Your task to perform on an android device: Google the capital of Peru Image 0: 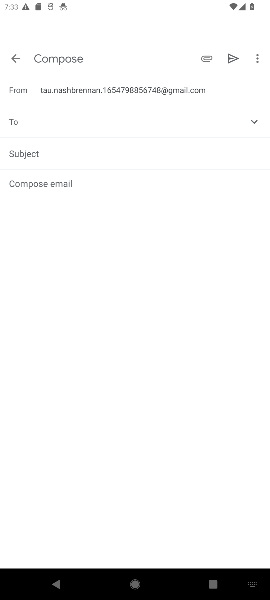
Step 0: press home button
Your task to perform on an android device: Google the capital of Peru Image 1: 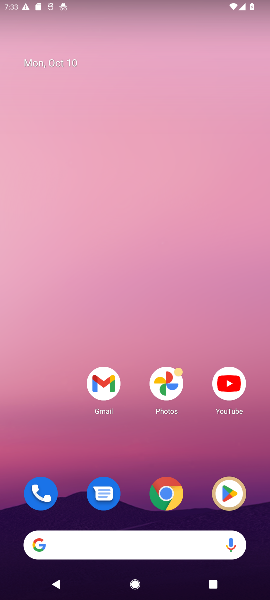
Step 1: drag from (128, 514) to (223, 589)
Your task to perform on an android device: Google the capital of Peru Image 2: 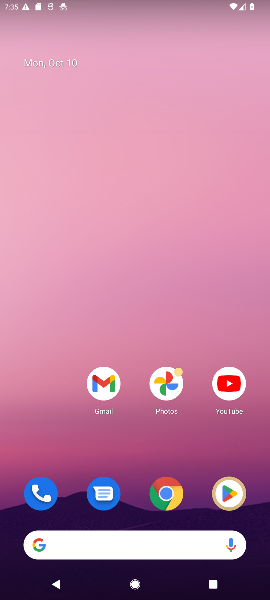
Step 2: click (157, 353)
Your task to perform on an android device: Google the capital of Peru Image 3: 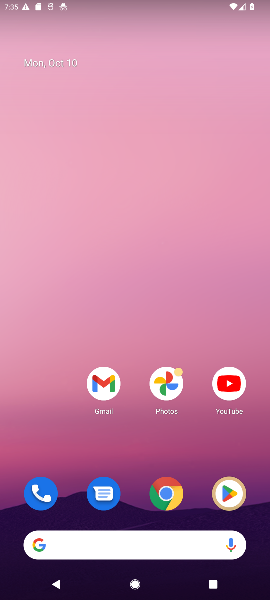
Step 3: drag from (134, 349) to (134, 166)
Your task to perform on an android device: Google the capital of Peru Image 4: 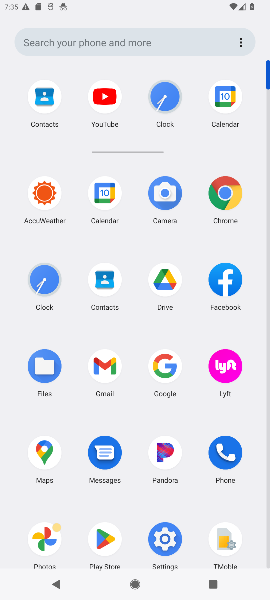
Step 4: click (162, 369)
Your task to perform on an android device: Google the capital of Peru Image 5: 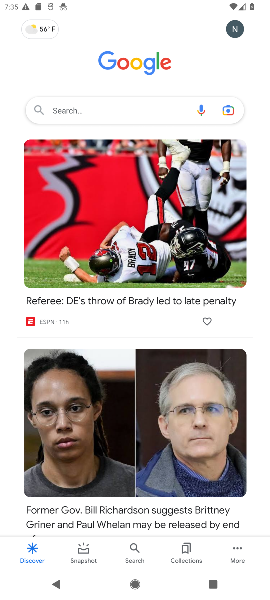
Step 5: click (87, 108)
Your task to perform on an android device: Google the capital of Peru Image 6: 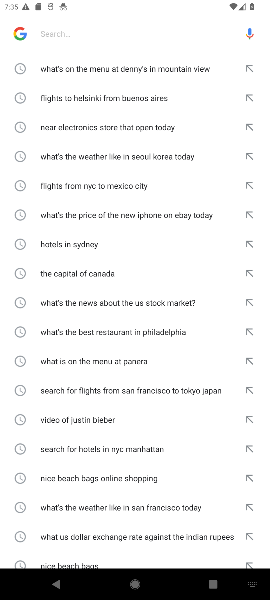
Step 6: type "the capital of Peru"
Your task to perform on an android device: Google the capital of Peru Image 7: 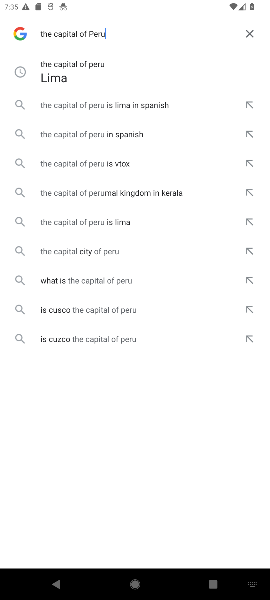
Step 7: click (84, 63)
Your task to perform on an android device: Google the capital of Peru Image 8: 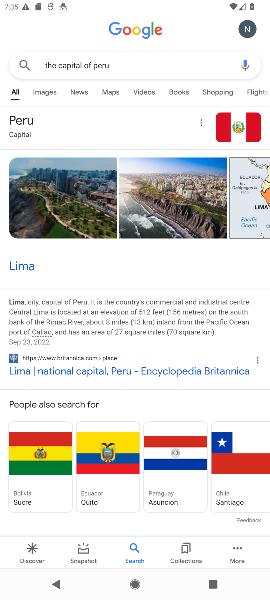
Step 8: task complete